Your task to perform on an android device: clear history in the chrome app Image 0: 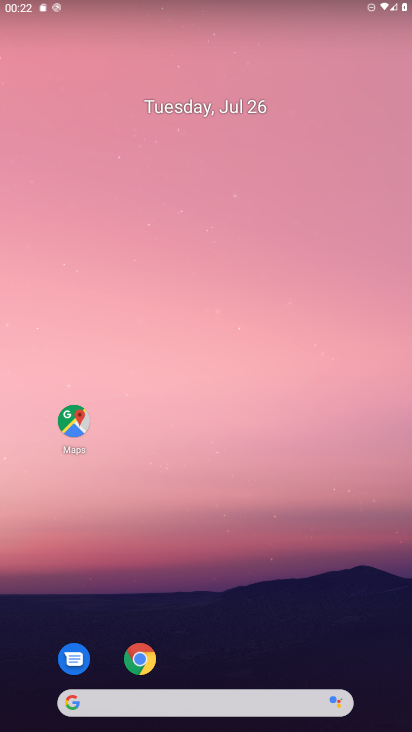
Step 0: press home button
Your task to perform on an android device: clear history in the chrome app Image 1: 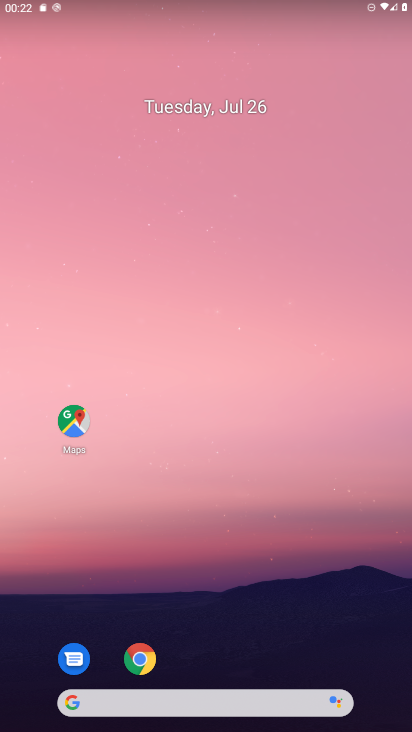
Step 1: drag from (221, 682) to (394, 235)
Your task to perform on an android device: clear history in the chrome app Image 2: 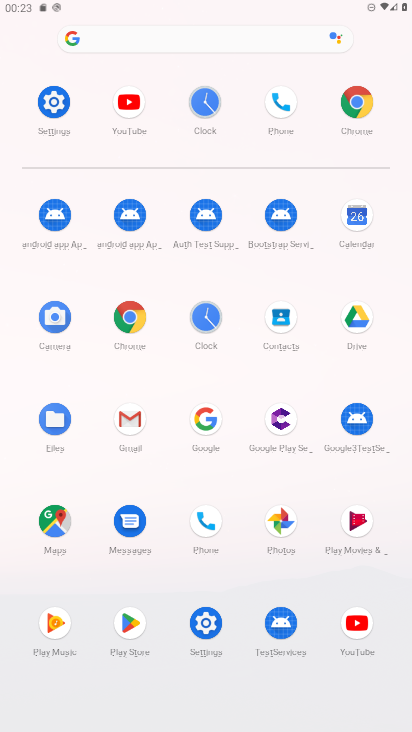
Step 2: click (139, 338)
Your task to perform on an android device: clear history in the chrome app Image 3: 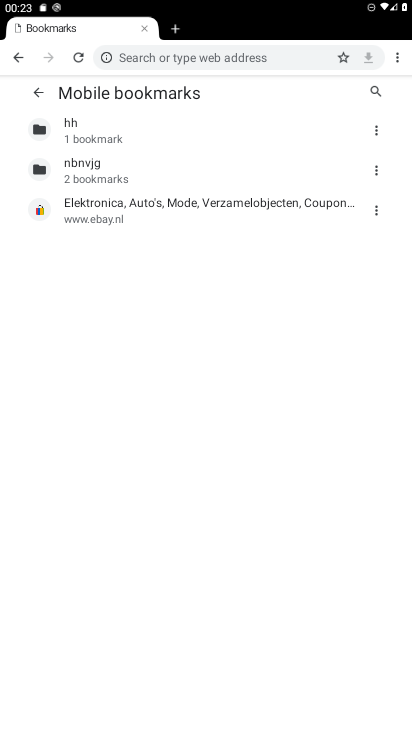
Step 3: drag from (397, 53) to (287, 301)
Your task to perform on an android device: clear history in the chrome app Image 4: 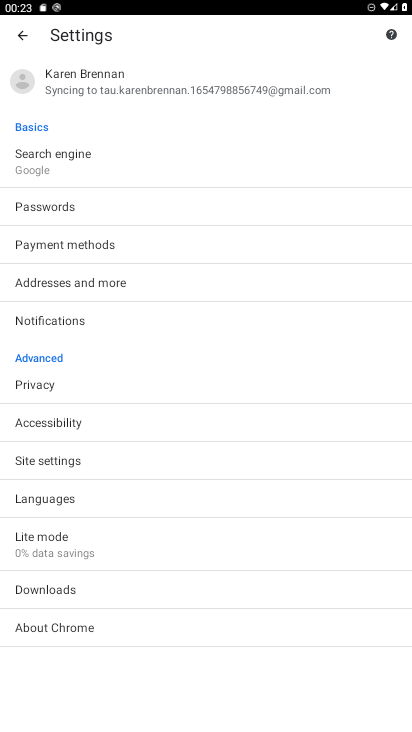
Step 4: press back button
Your task to perform on an android device: clear history in the chrome app Image 5: 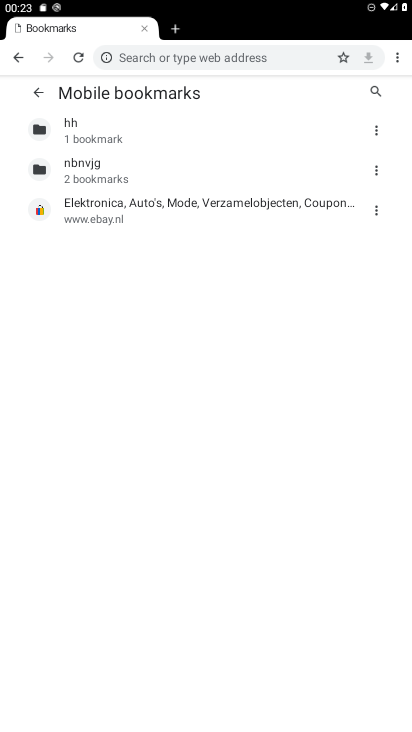
Step 5: drag from (395, 50) to (283, 220)
Your task to perform on an android device: clear history in the chrome app Image 6: 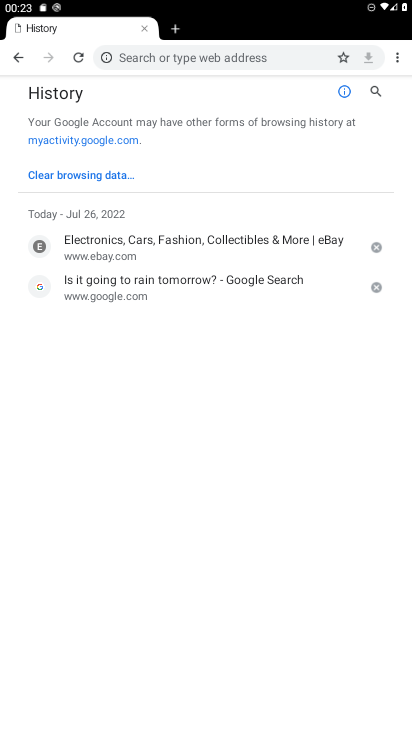
Step 6: click (52, 174)
Your task to perform on an android device: clear history in the chrome app Image 7: 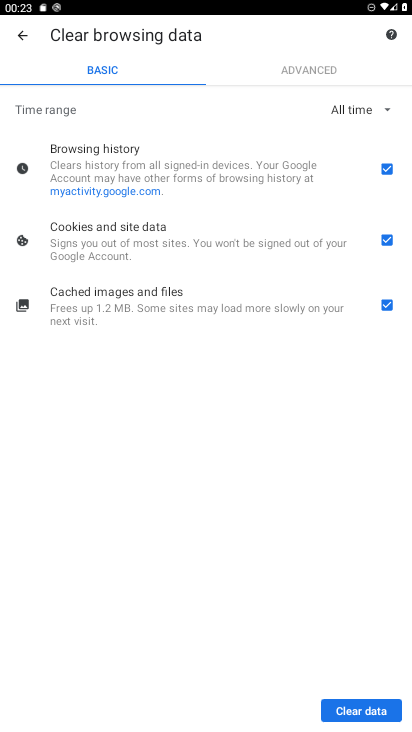
Step 7: click (391, 709)
Your task to perform on an android device: clear history in the chrome app Image 8: 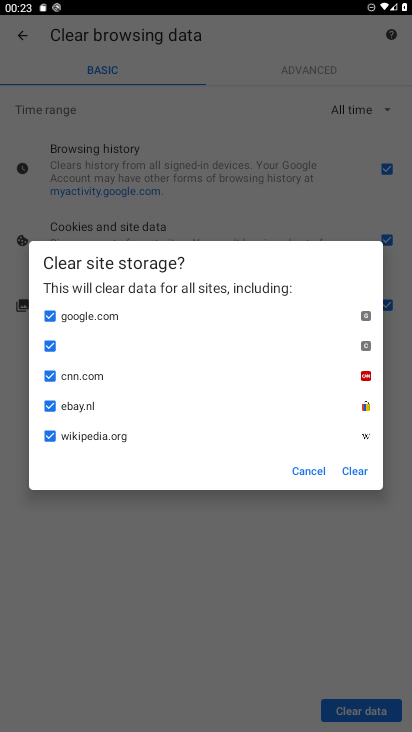
Step 8: click (353, 480)
Your task to perform on an android device: clear history in the chrome app Image 9: 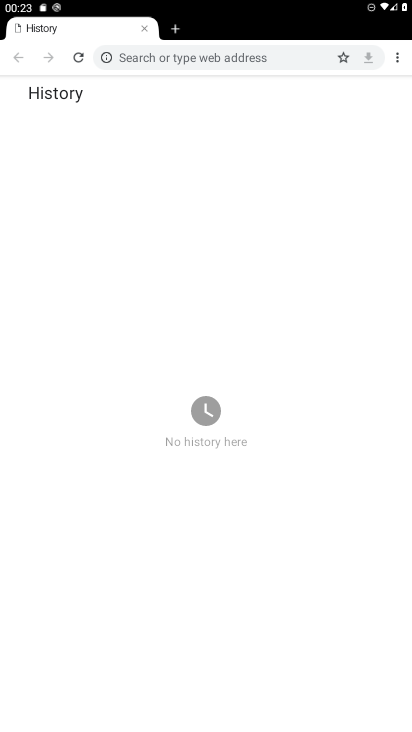
Step 9: task complete